Your task to perform on an android device: change timer sound Image 0: 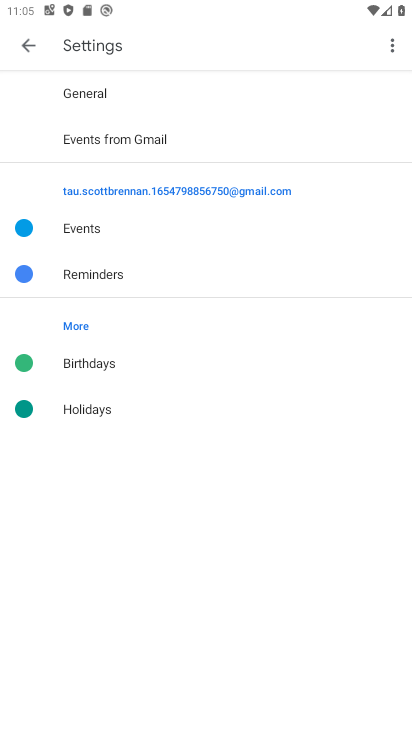
Step 0: press home button
Your task to perform on an android device: change timer sound Image 1: 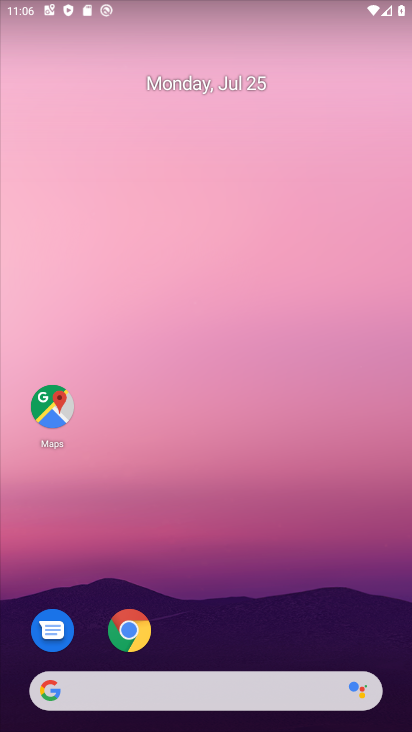
Step 1: drag from (348, 570) to (340, 94)
Your task to perform on an android device: change timer sound Image 2: 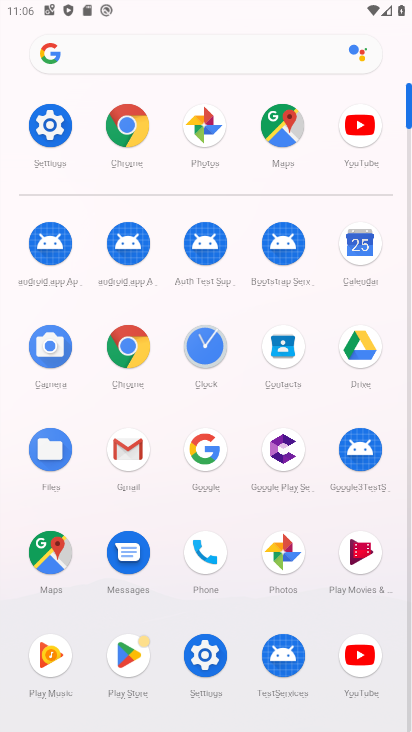
Step 2: click (207, 351)
Your task to perform on an android device: change timer sound Image 3: 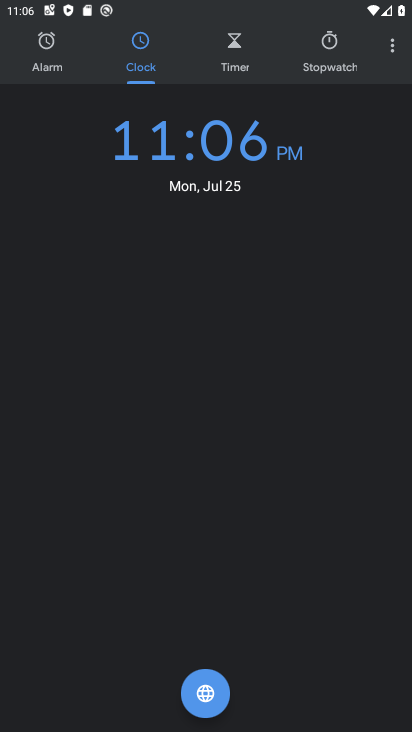
Step 3: click (391, 53)
Your task to perform on an android device: change timer sound Image 4: 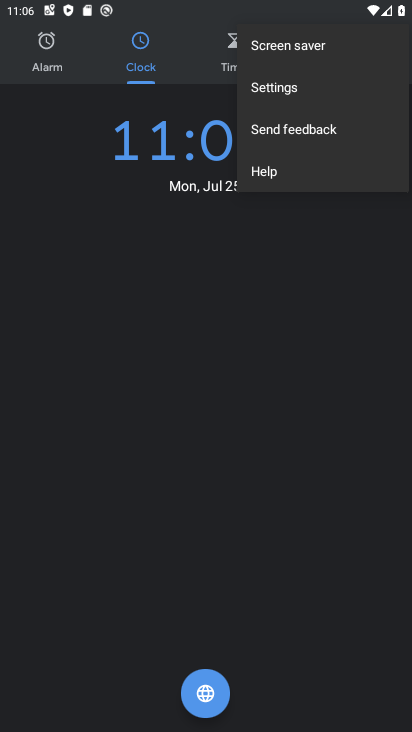
Step 4: click (314, 94)
Your task to perform on an android device: change timer sound Image 5: 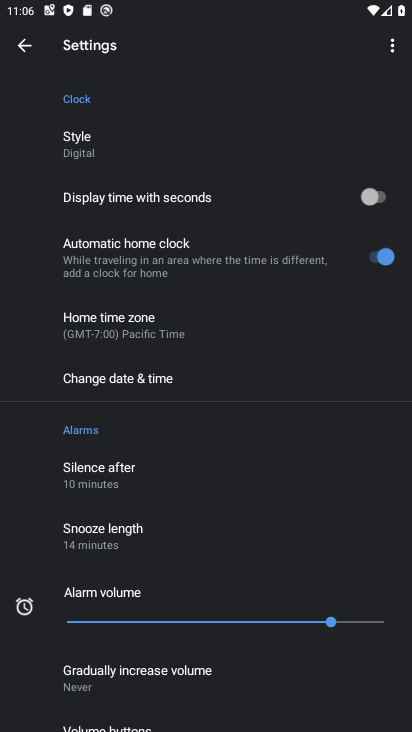
Step 5: drag from (350, 536) to (353, 398)
Your task to perform on an android device: change timer sound Image 6: 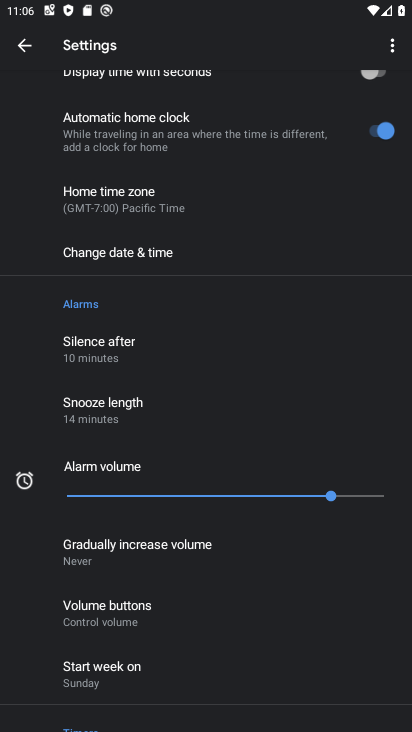
Step 6: drag from (355, 667) to (352, 519)
Your task to perform on an android device: change timer sound Image 7: 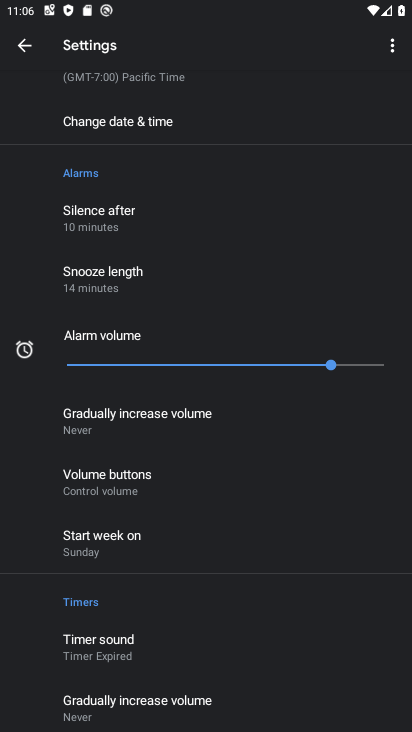
Step 7: drag from (279, 552) to (285, 438)
Your task to perform on an android device: change timer sound Image 8: 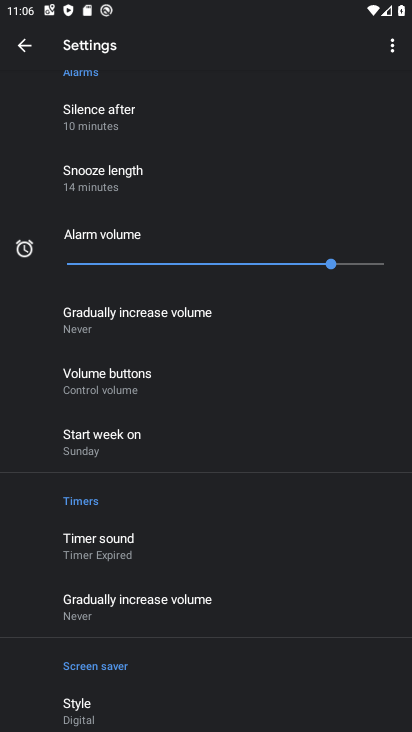
Step 8: drag from (270, 522) to (274, 403)
Your task to perform on an android device: change timer sound Image 9: 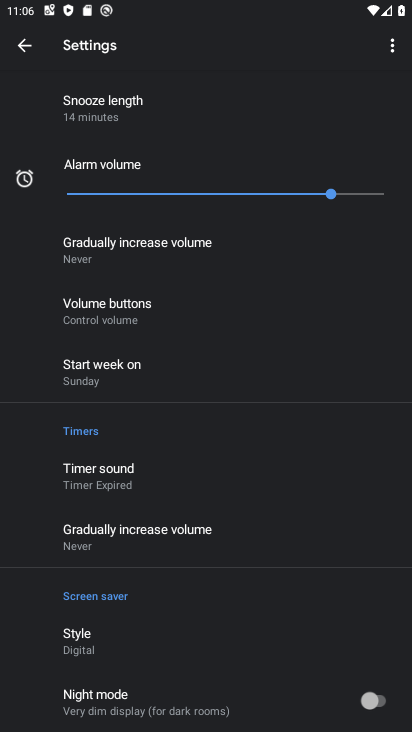
Step 9: drag from (294, 580) to (293, 446)
Your task to perform on an android device: change timer sound Image 10: 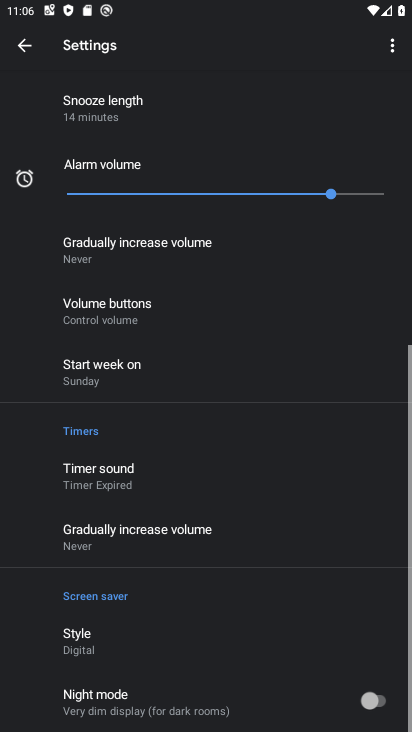
Step 10: click (279, 465)
Your task to perform on an android device: change timer sound Image 11: 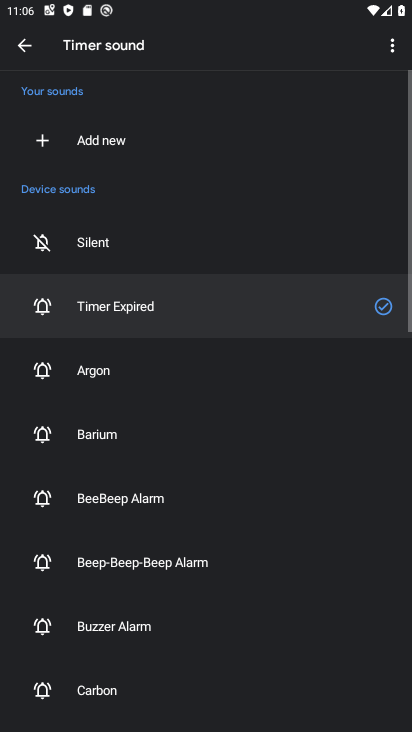
Step 11: click (190, 510)
Your task to perform on an android device: change timer sound Image 12: 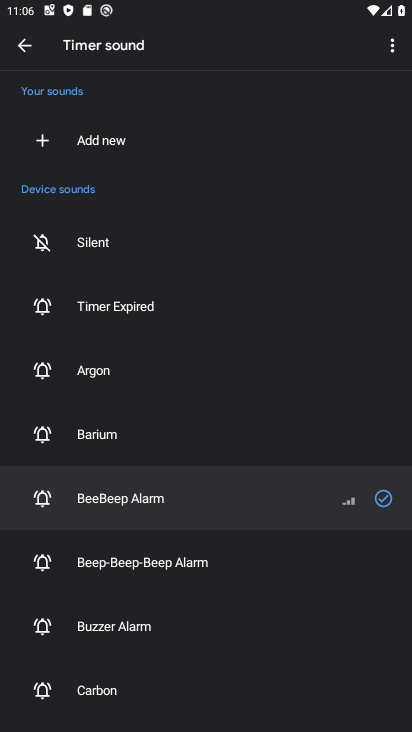
Step 12: task complete